Your task to perform on an android device: all mails in gmail Image 0: 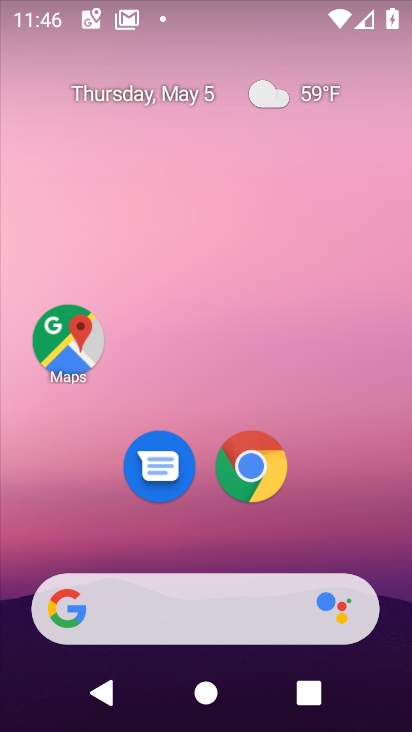
Step 0: drag from (316, 533) to (255, 64)
Your task to perform on an android device: all mails in gmail Image 1: 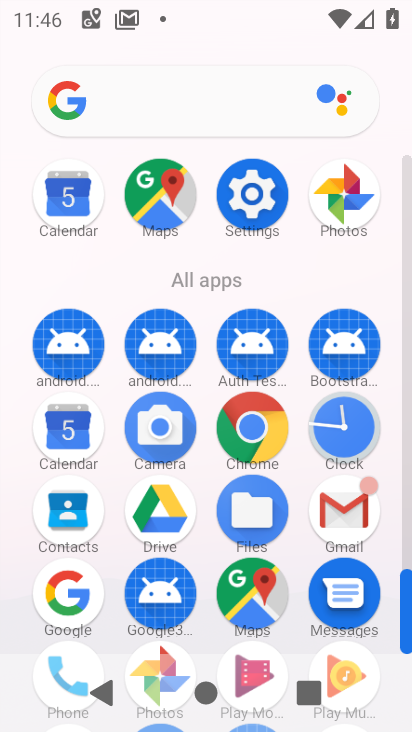
Step 1: click (354, 518)
Your task to perform on an android device: all mails in gmail Image 2: 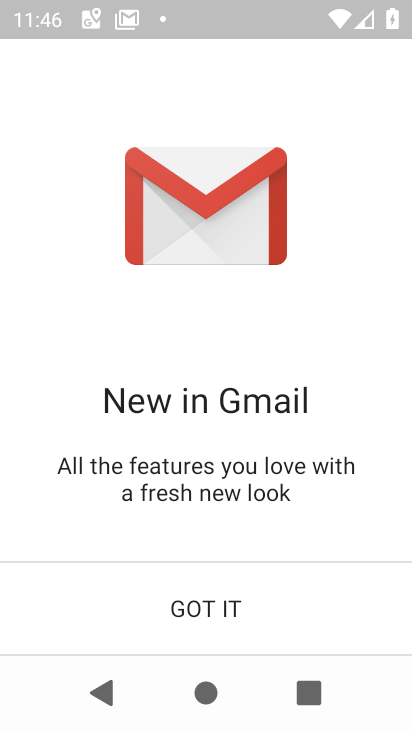
Step 2: click (198, 615)
Your task to perform on an android device: all mails in gmail Image 3: 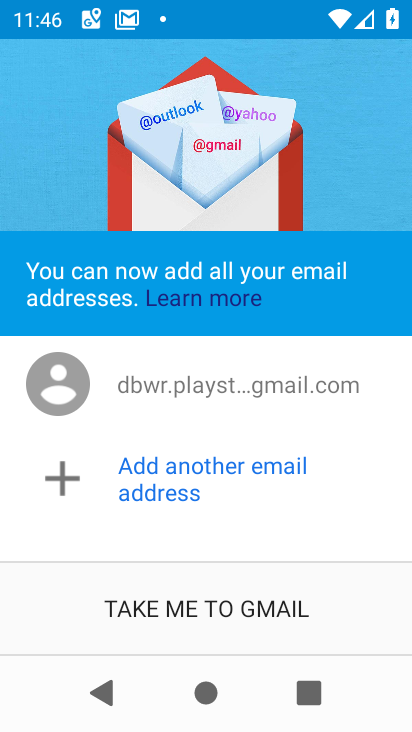
Step 3: click (202, 611)
Your task to perform on an android device: all mails in gmail Image 4: 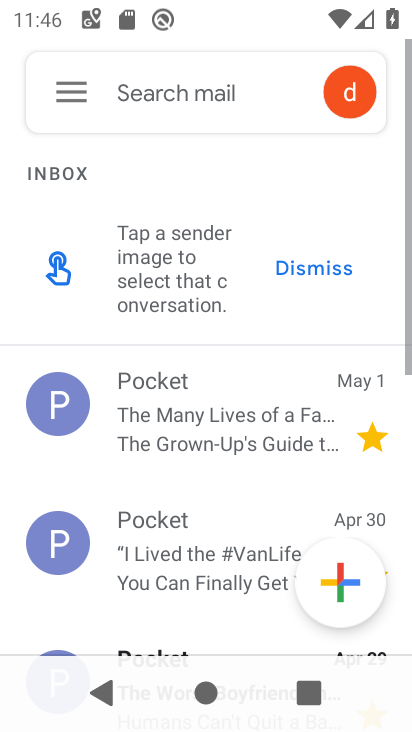
Step 4: click (74, 87)
Your task to perform on an android device: all mails in gmail Image 5: 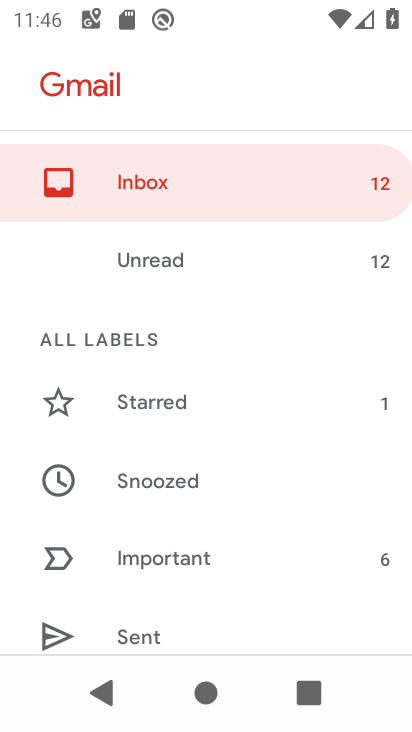
Step 5: drag from (228, 611) to (264, 77)
Your task to perform on an android device: all mails in gmail Image 6: 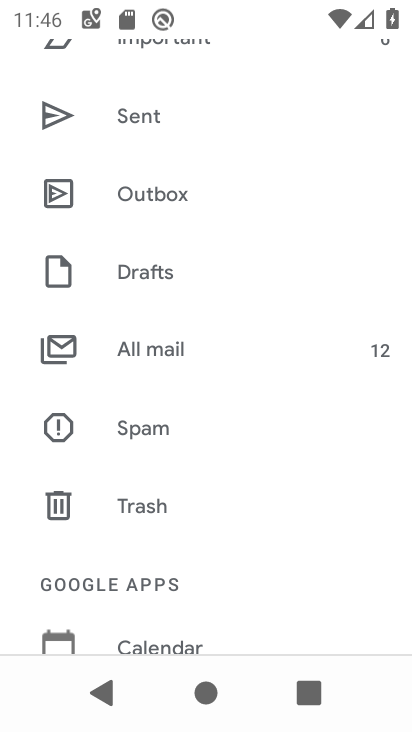
Step 6: click (272, 350)
Your task to perform on an android device: all mails in gmail Image 7: 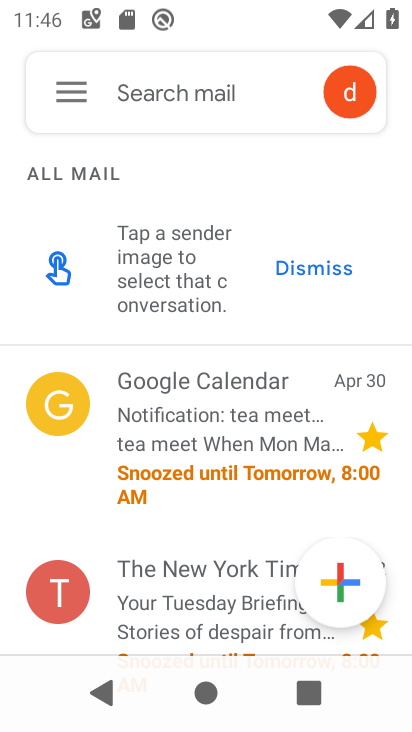
Step 7: task complete